Your task to perform on an android device: visit the assistant section in the google photos Image 0: 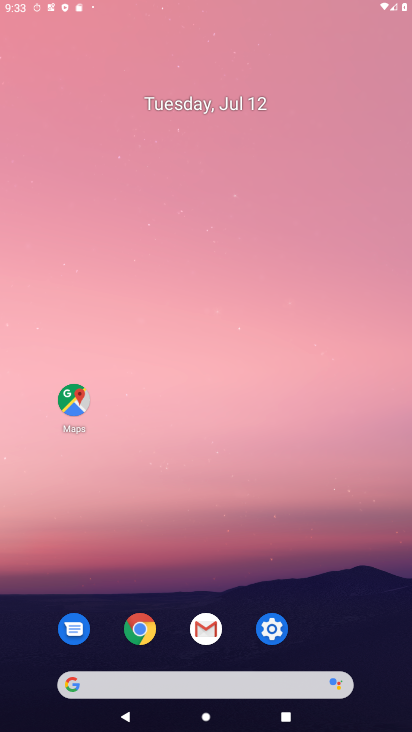
Step 0: press home button
Your task to perform on an android device: visit the assistant section in the google photos Image 1: 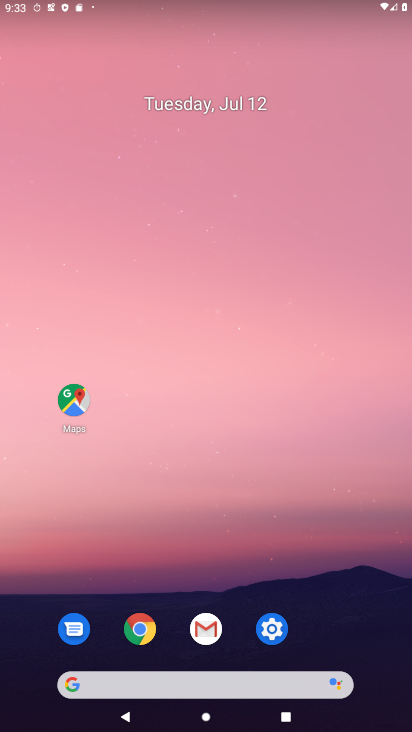
Step 1: drag from (237, 690) to (227, 117)
Your task to perform on an android device: visit the assistant section in the google photos Image 2: 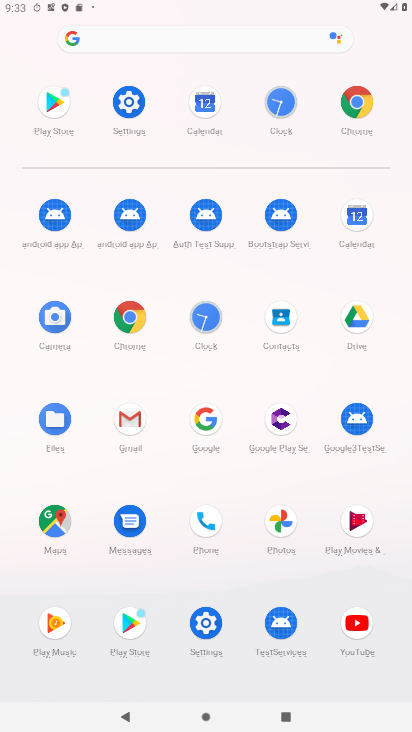
Step 2: click (275, 514)
Your task to perform on an android device: visit the assistant section in the google photos Image 3: 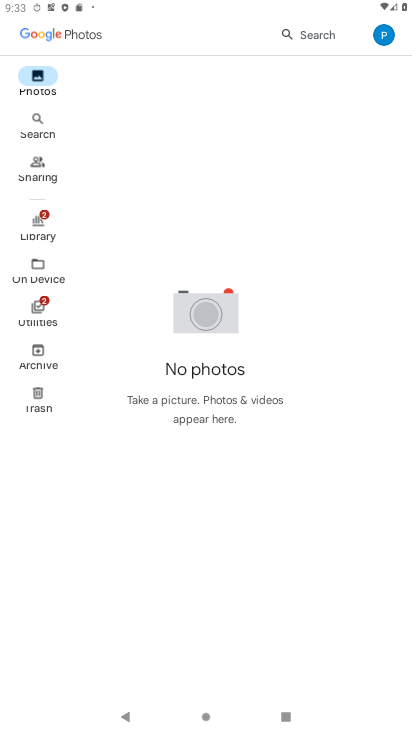
Step 3: click (384, 36)
Your task to perform on an android device: visit the assistant section in the google photos Image 4: 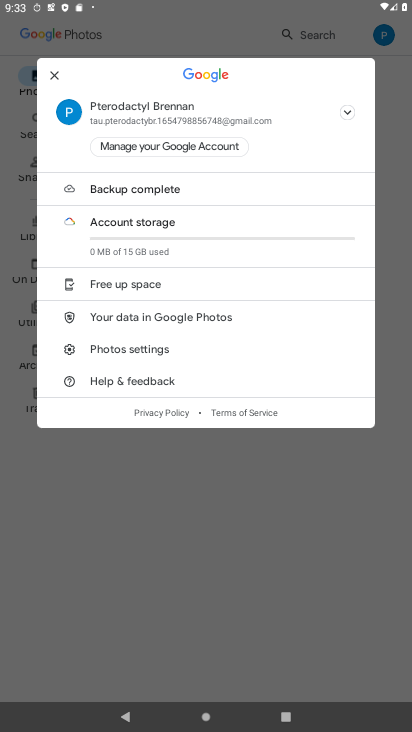
Step 4: click (133, 352)
Your task to perform on an android device: visit the assistant section in the google photos Image 5: 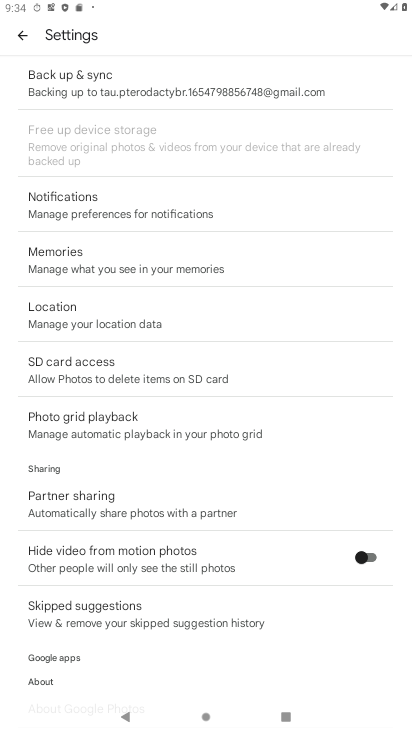
Step 5: task complete